Your task to perform on an android device: Go to Google maps Image 0: 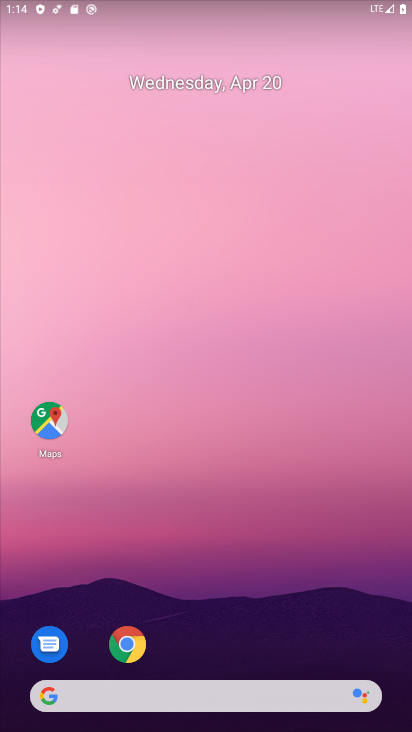
Step 0: drag from (288, 680) to (312, 22)
Your task to perform on an android device: Go to Google maps Image 1: 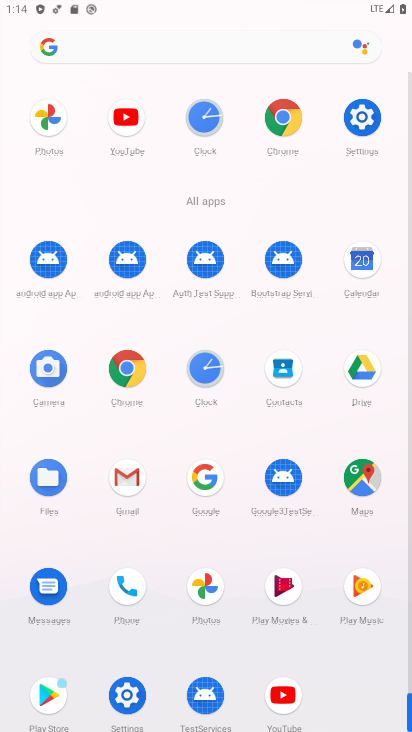
Step 1: click (359, 484)
Your task to perform on an android device: Go to Google maps Image 2: 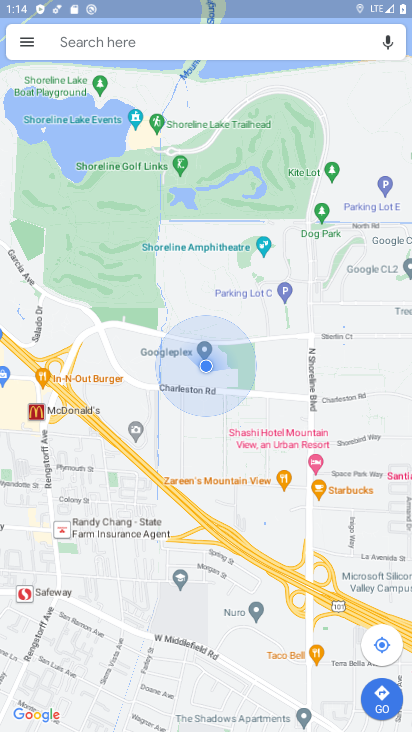
Step 2: task complete